Your task to perform on an android device: Go to calendar. Show me events next week Image 0: 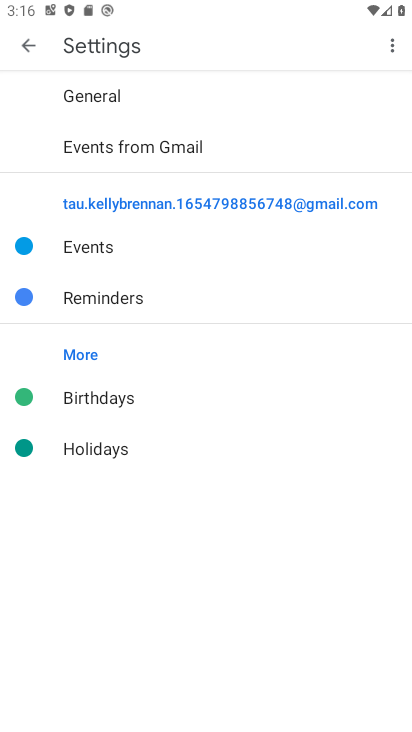
Step 0: press home button
Your task to perform on an android device: Go to calendar. Show me events next week Image 1: 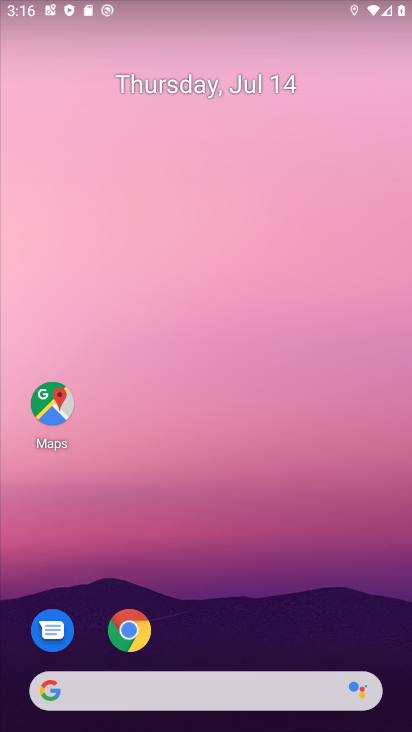
Step 1: click (302, 625)
Your task to perform on an android device: Go to calendar. Show me events next week Image 2: 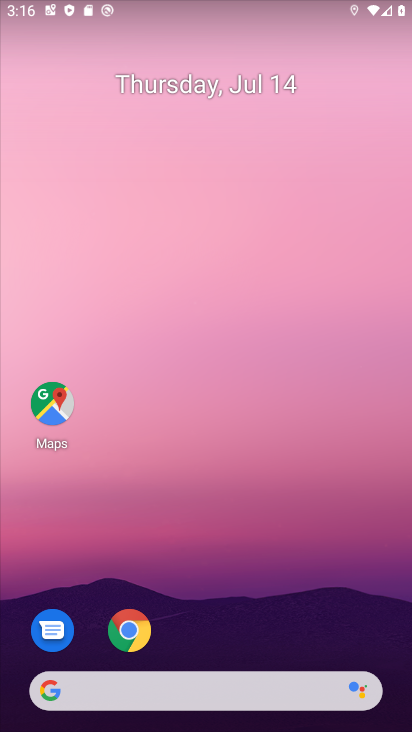
Step 2: drag from (350, 516) to (118, 3)
Your task to perform on an android device: Go to calendar. Show me events next week Image 3: 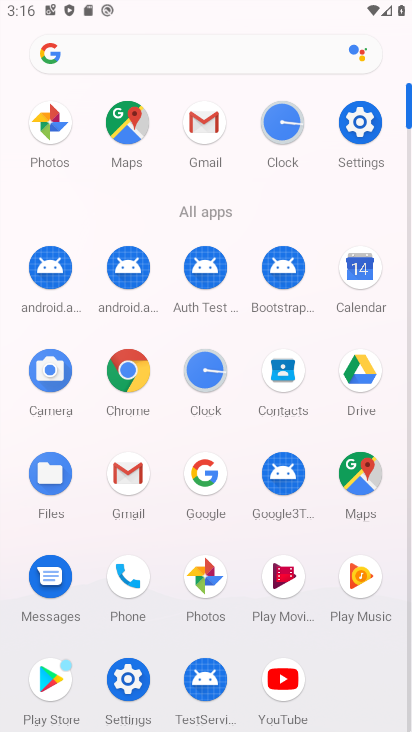
Step 3: click (367, 276)
Your task to perform on an android device: Go to calendar. Show me events next week Image 4: 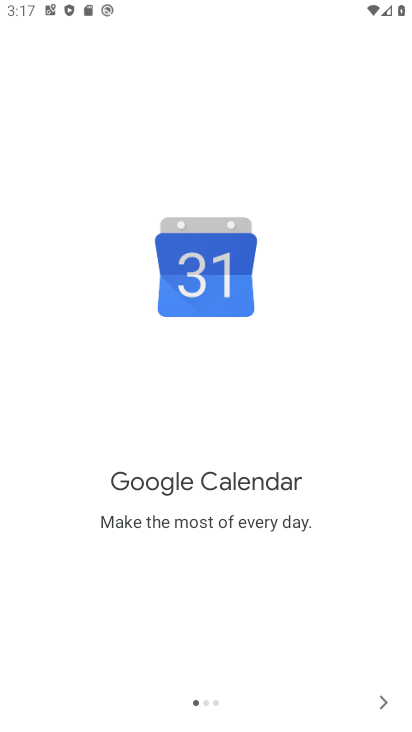
Step 4: click (383, 698)
Your task to perform on an android device: Go to calendar. Show me events next week Image 5: 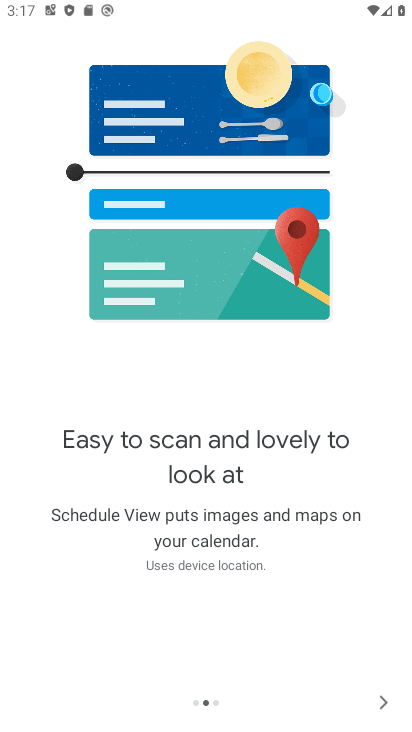
Step 5: click (383, 698)
Your task to perform on an android device: Go to calendar. Show me events next week Image 6: 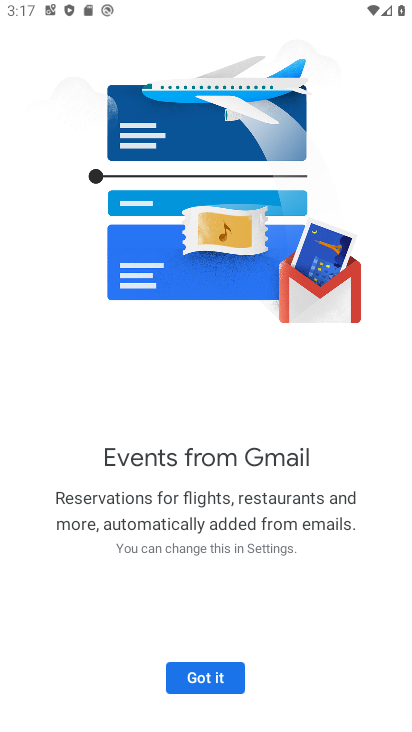
Step 6: click (214, 680)
Your task to perform on an android device: Go to calendar. Show me events next week Image 7: 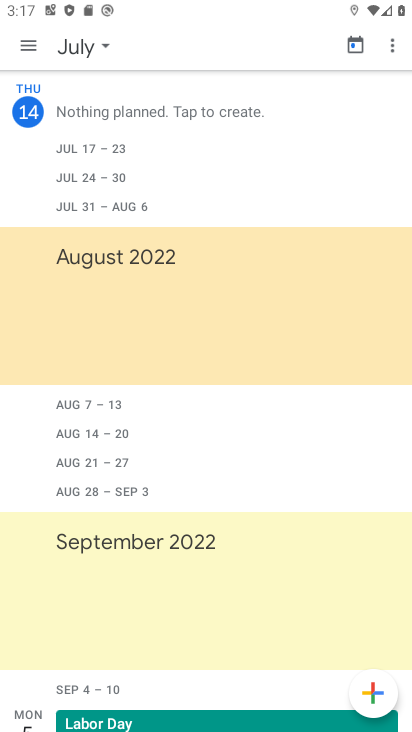
Step 7: click (22, 44)
Your task to perform on an android device: Go to calendar. Show me events next week Image 8: 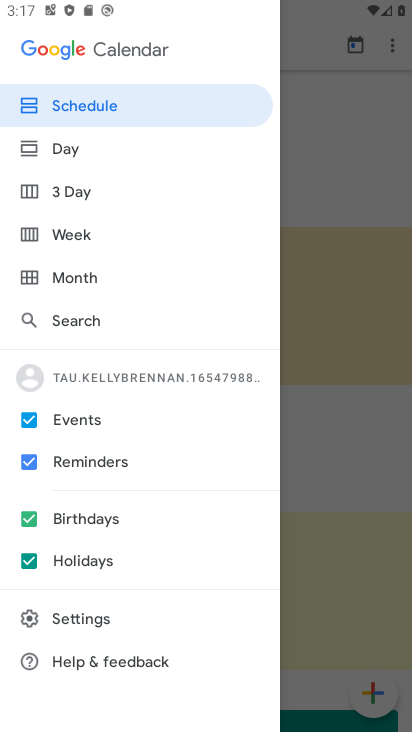
Step 8: click (195, 228)
Your task to perform on an android device: Go to calendar. Show me events next week Image 9: 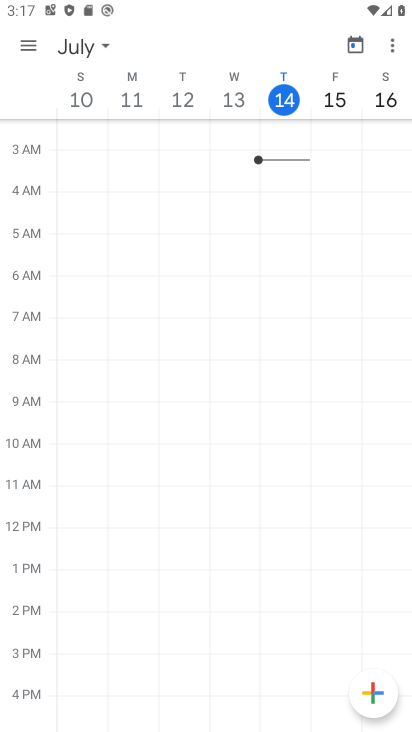
Step 9: click (75, 47)
Your task to perform on an android device: Go to calendar. Show me events next week Image 10: 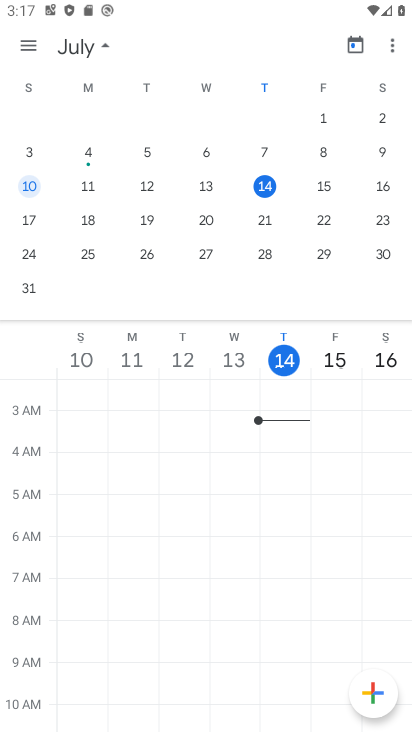
Step 10: click (211, 232)
Your task to perform on an android device: Go to calendar. Show me events next week Image 11: 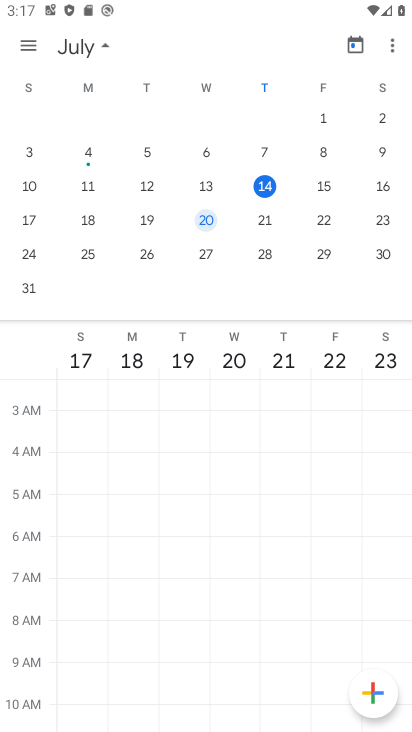
Step 11: task complete